Your task to perform on an android device: change the clock display to digital Image 0: 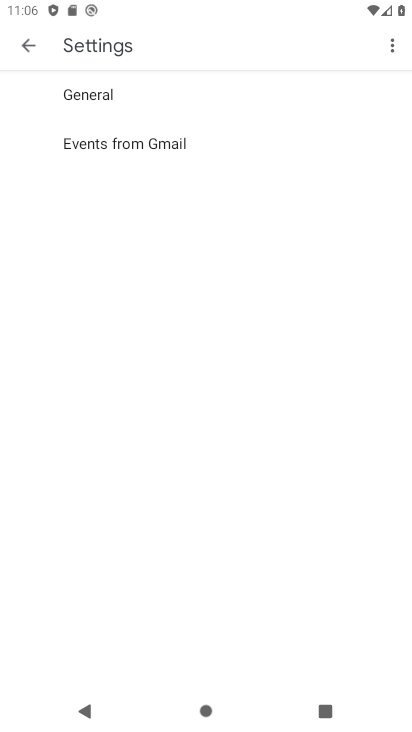
Step 0: press home button
Your task to perform on an android device: change the clock display to digital Image 1: 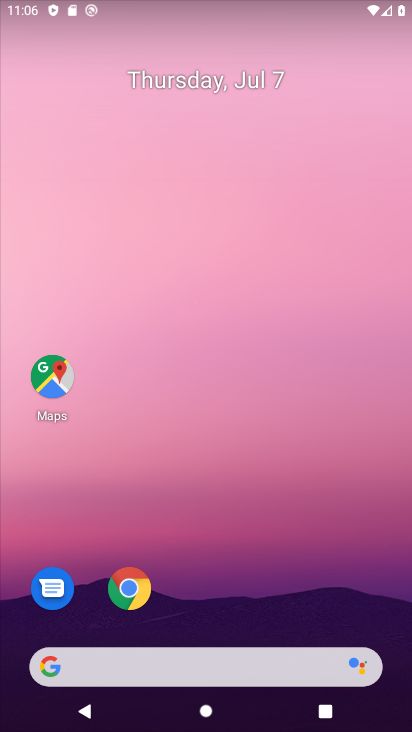
Step 1: drag from (259, 515) to (190, 128)
Your task to perform on an android device: change the clock display to digital Image 2: 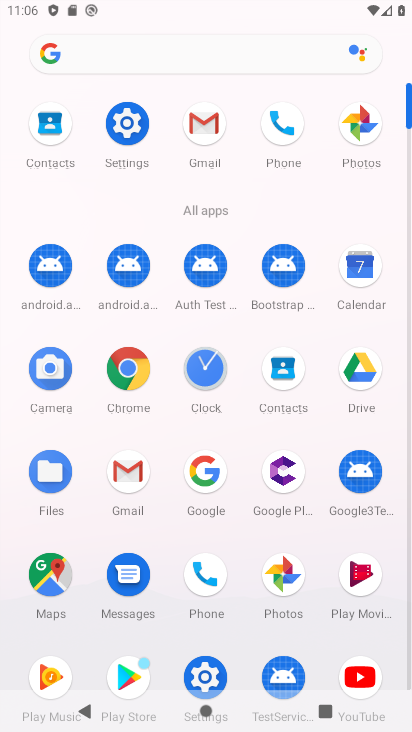
Step 2: click (203, 367)
Your task to perform on an android device: change the clock display to digital Image 3: 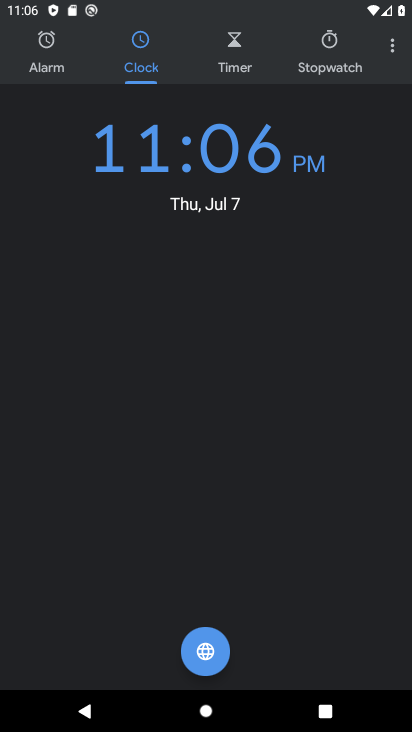
Step 3: click (394, 47)
Your task to perform on an android device: change the clock display to digital Image 4: 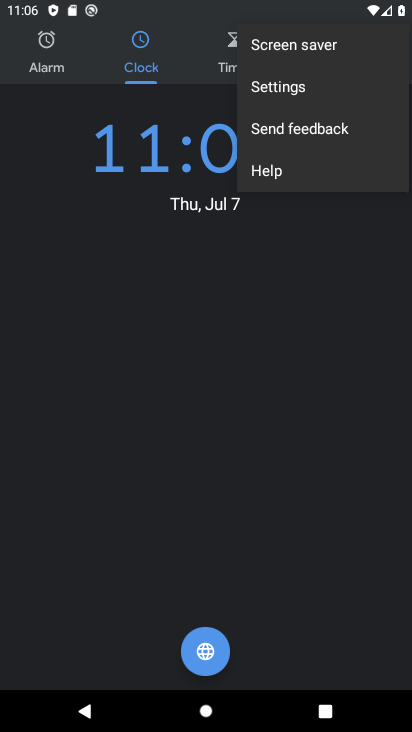
Step 4: click (300, 85)
Your task to perform on an android device: change the clock display to digital Image 5: 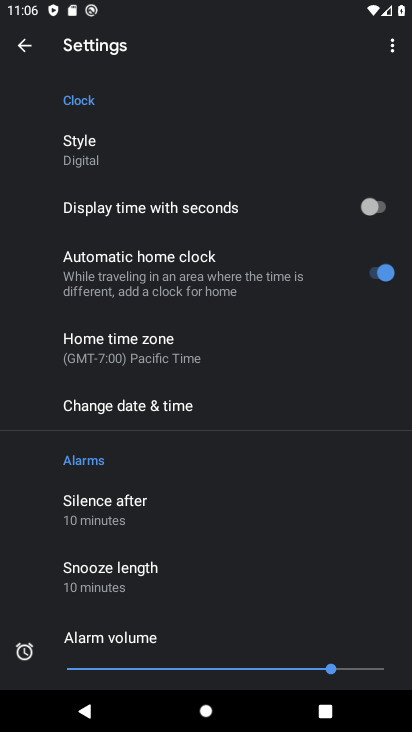
Step 5: task complete